Your task to perform on an android device: When is my next meeting? Image 0: 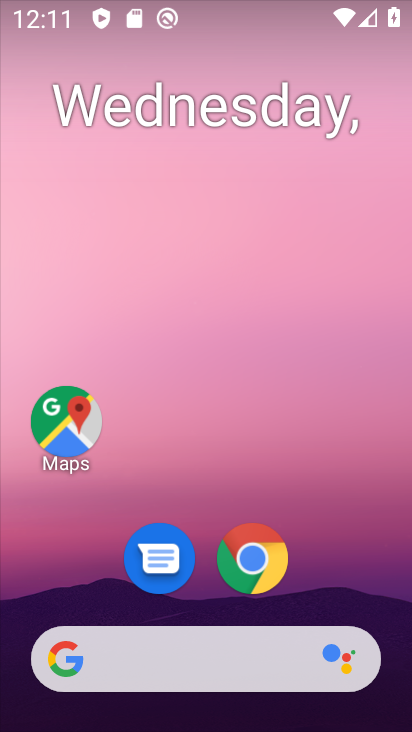
Step 0: drag from (213, 721) to (184, 136)
Your task to perform on an android device: When is my next meeting? Image 1: 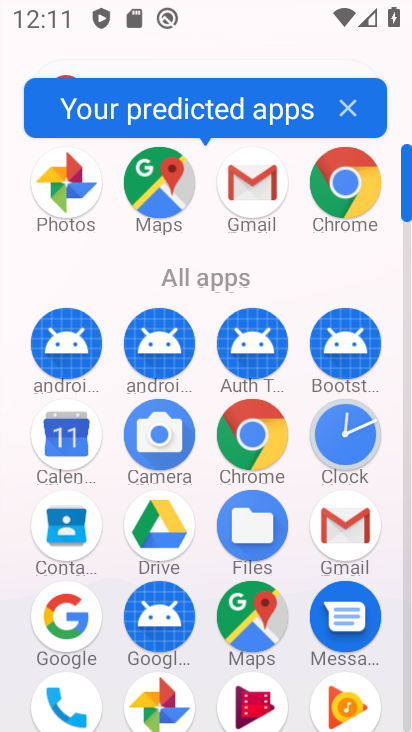
Step 1: click (64, 442)
Your task to perform on an android device: When is my next meeting? Image 2: 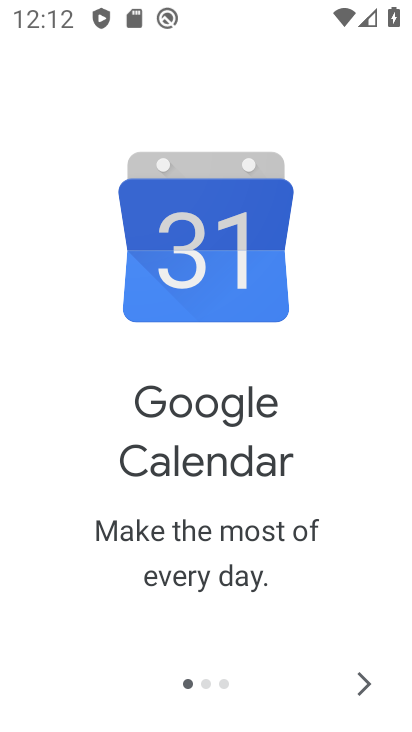
Step 2: click (365, 672)
Your task to perform on an android device: When is my next meeting? Image 3: 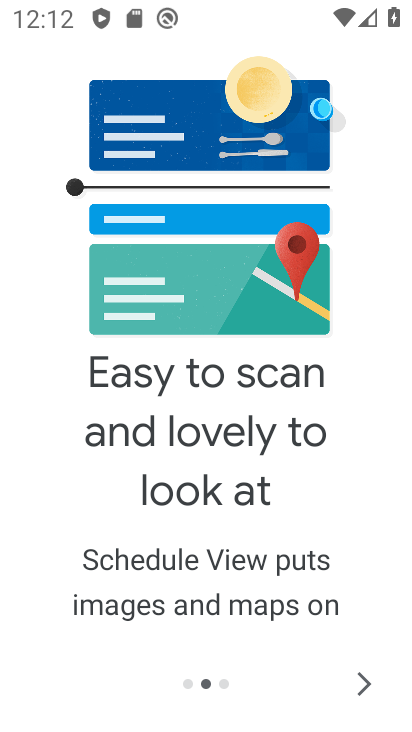
Step 3: click (356, 677)
Your task to perform on an android device: When is my next meeting? Image 4: 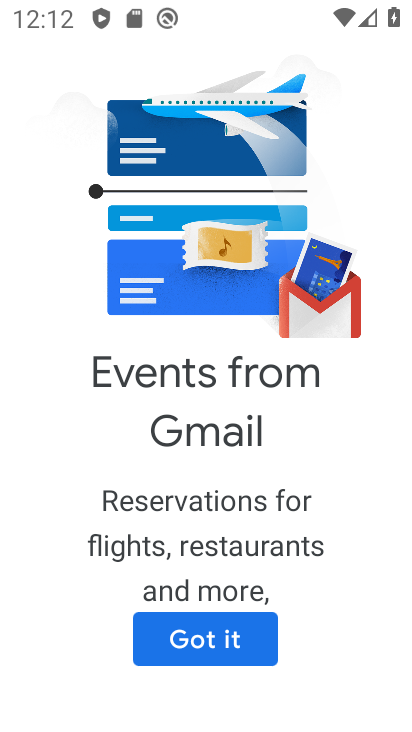
Step 4: click (214, 633)
Your task to perform on an android device: When is my next meeting? Image 5: 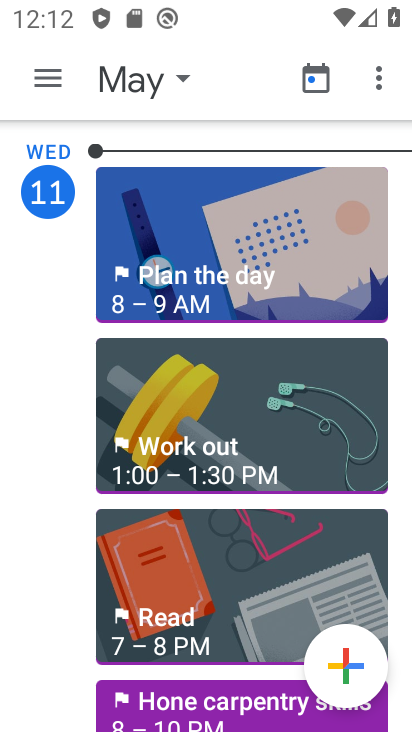
Step 5: click (125, 73)
Your task to perform on an android device: When is my next meeting? Image 6: 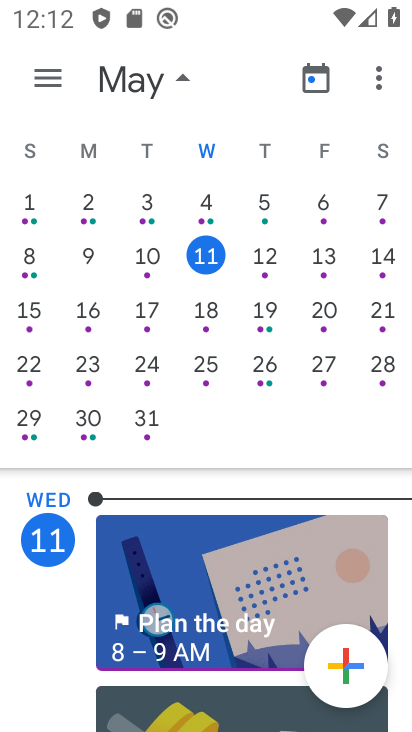
Step 6: click (269, 250)
Your task to perform on an android device: When is my next meeting? Image 7: 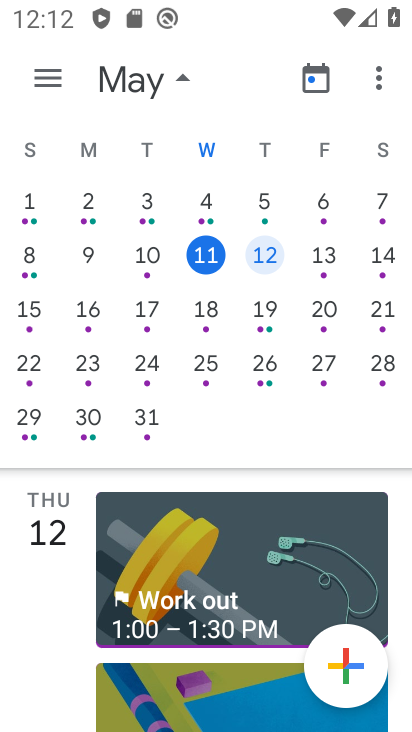
Step 7: click (267, 248)
Your task to perform on an android device: When is my next meeting? Image 8: 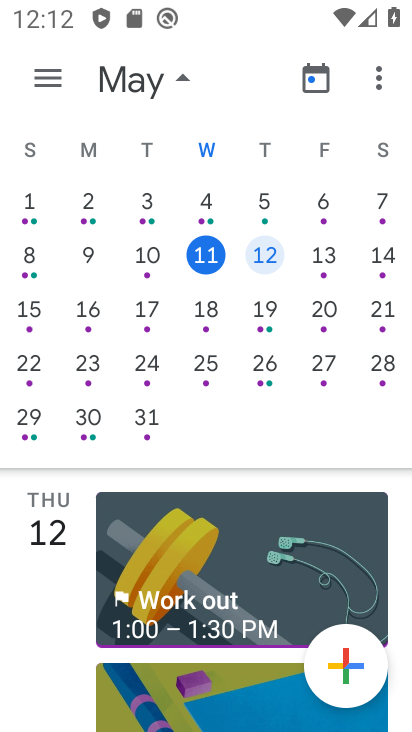
Step 8: click (179, 76)
Your task to perform on an android device: When is my next meeting? Image 9: 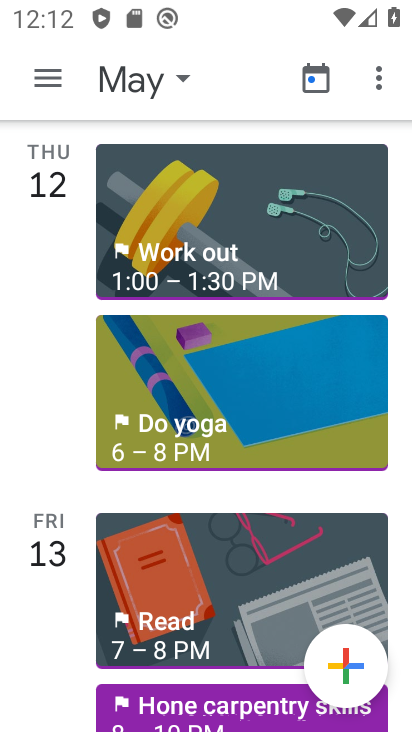
Step 9: task complete